Your task to perform on an android device: What is the recent news? Image 0: 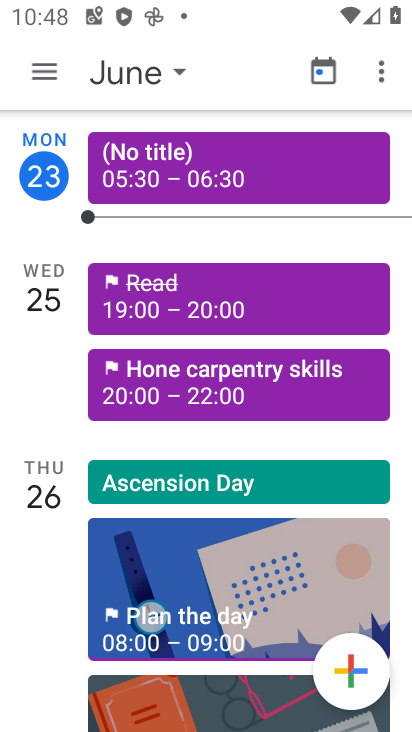
Step 0: press home button
Your task to perform on an android device: What is the recent news? Image 1: 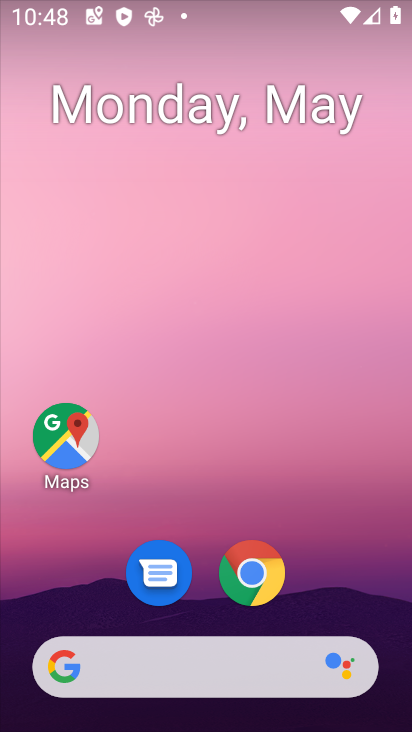
Step 1: click (252, 667)
Your task to perform on an android device: What is the recent news? Image 2: 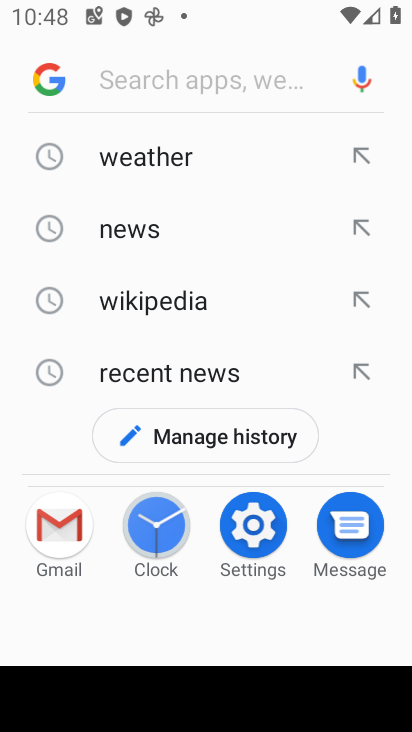
Step 2: click (171, 386)
Your task to perform on an android device: What is the recent news? Image 3: 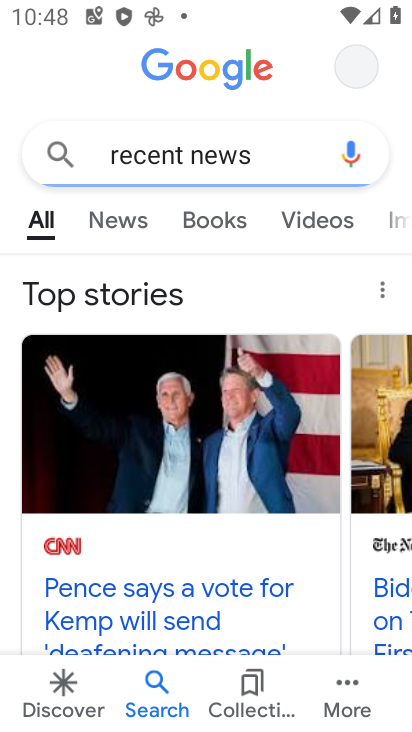
Step 3: task complete